Your task to perform on an android device: Show me productivity apps on the Play Store Image 0: 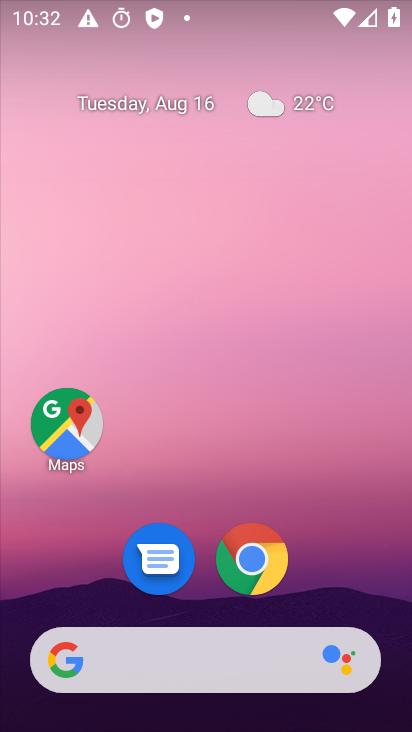
Step 0: drag from (190, 611) to (206, 16)
Your task to perform on an android device: Show me productivity apps on the Play Store Image 1: 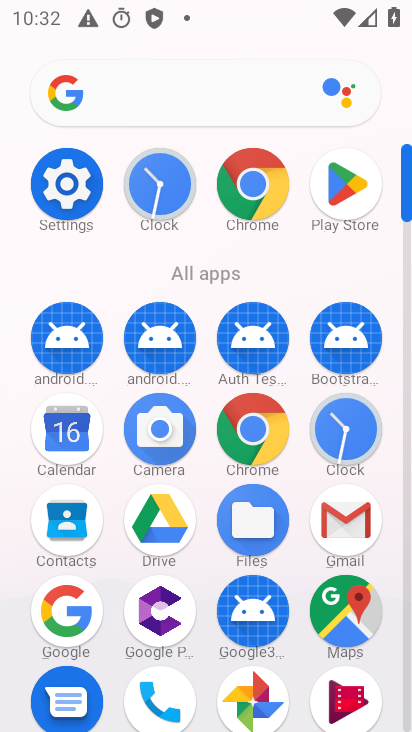
Step 1: drag from (194, 625) to (242, 249)
Your task to perform on an android device: Show me productivity apps on the Play Store Image 2: 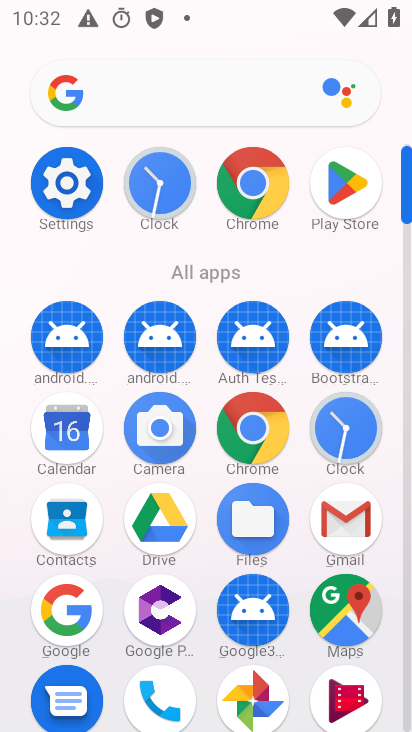
Step 2: drag from (204, 664) to (256, 14)
Your task to perform on an android device: Show me productivity apps on the Play Store Image 3: 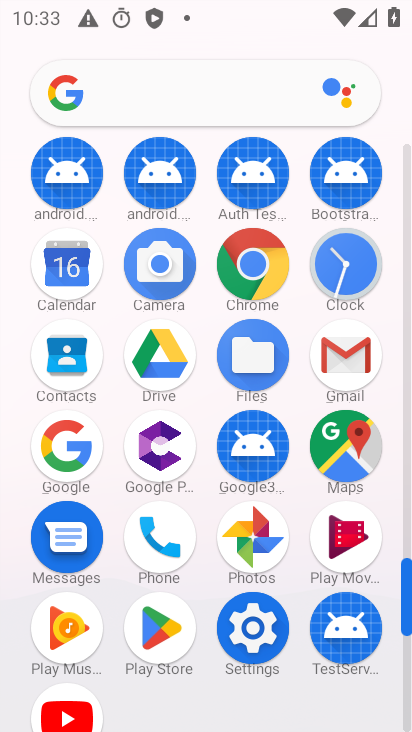
Step 3: click (154, 644)
Your task to perform on an android device: Show me productivity apps on the Play Store Image 4: 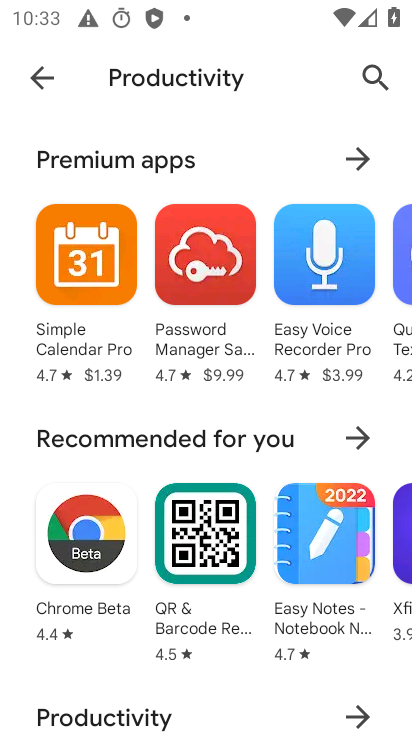
Step 4: task complete